Your task to perform on an android device: Open network settings Image 0: 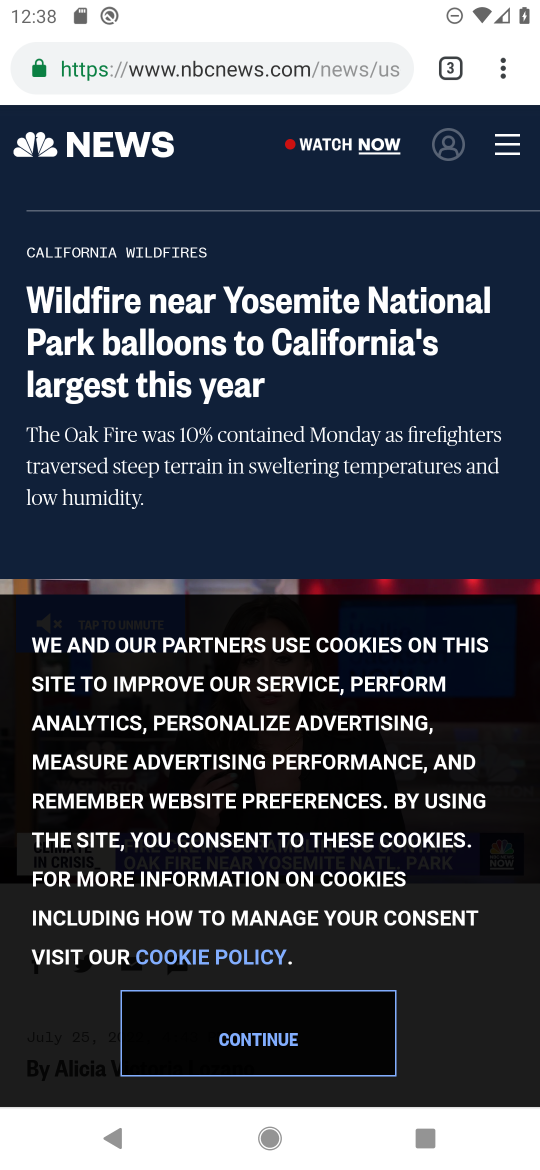
Step 0: click (516, 74)
Your task to perform on an android device: Open network settings Image 1: 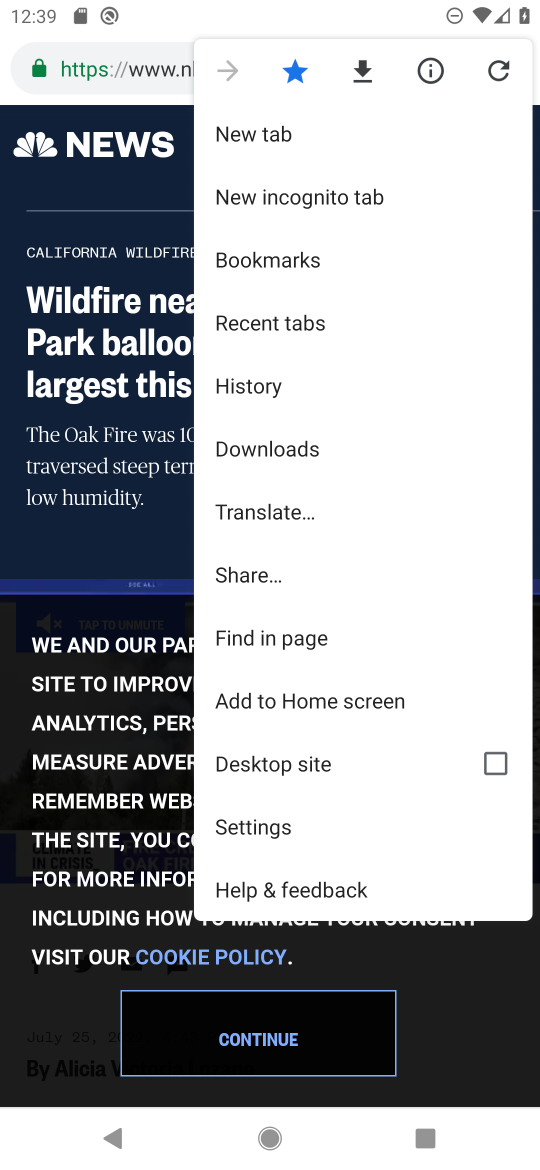
Step 1: click (272, 13)
Your task to perform on an android device: Open network settings Image 2: 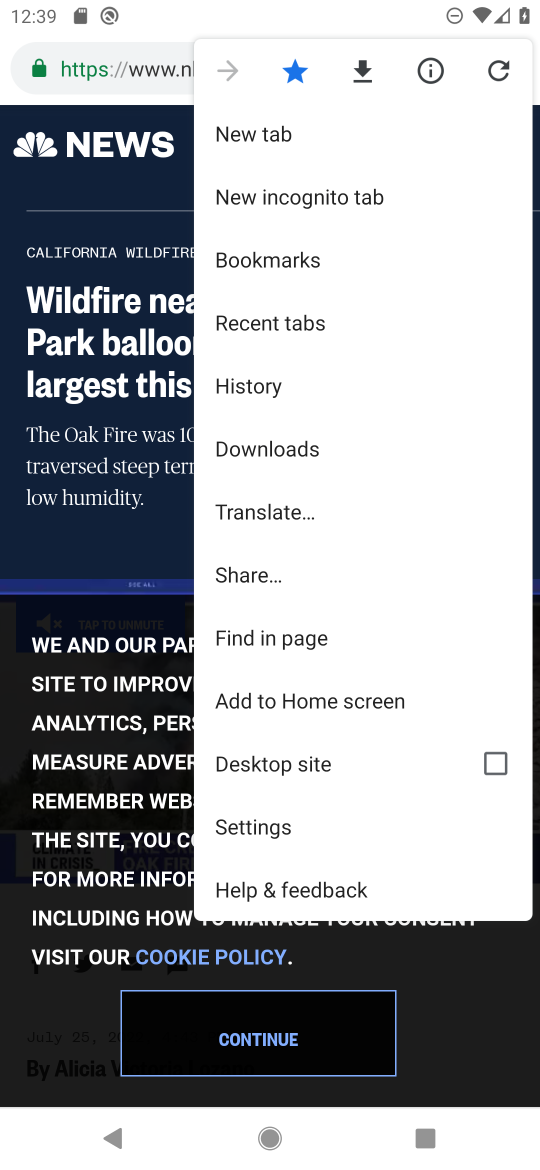
Step 2: drag from (255, 568) to (183, 897)
Your task to perform on an android device: Open network settings Image 3: 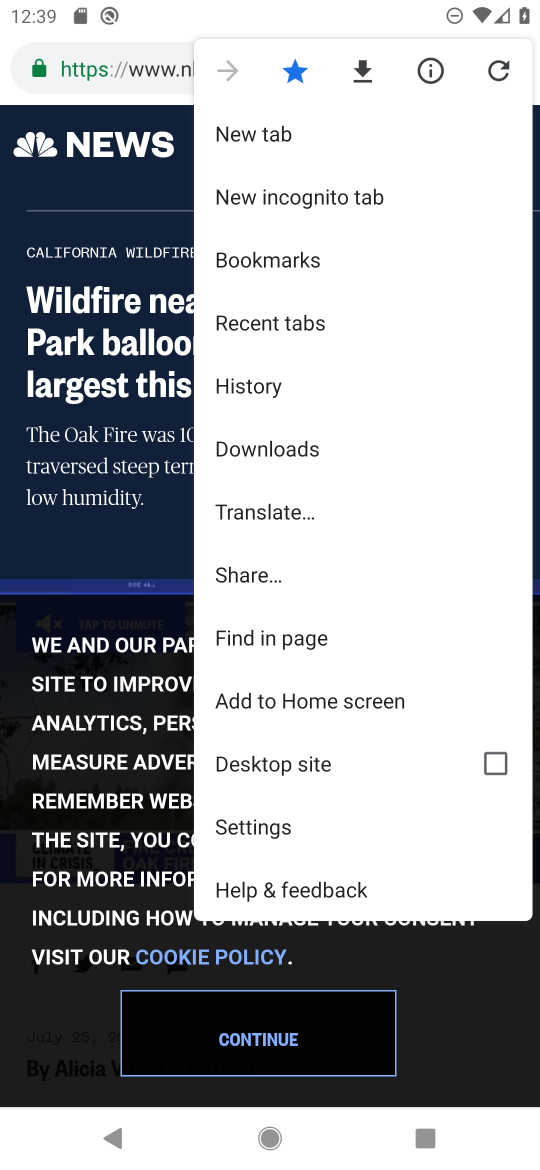
Step 3: drag from (254, 9) to (128, 1158)
Your task to perform on an android device: Open network settings Image 4: 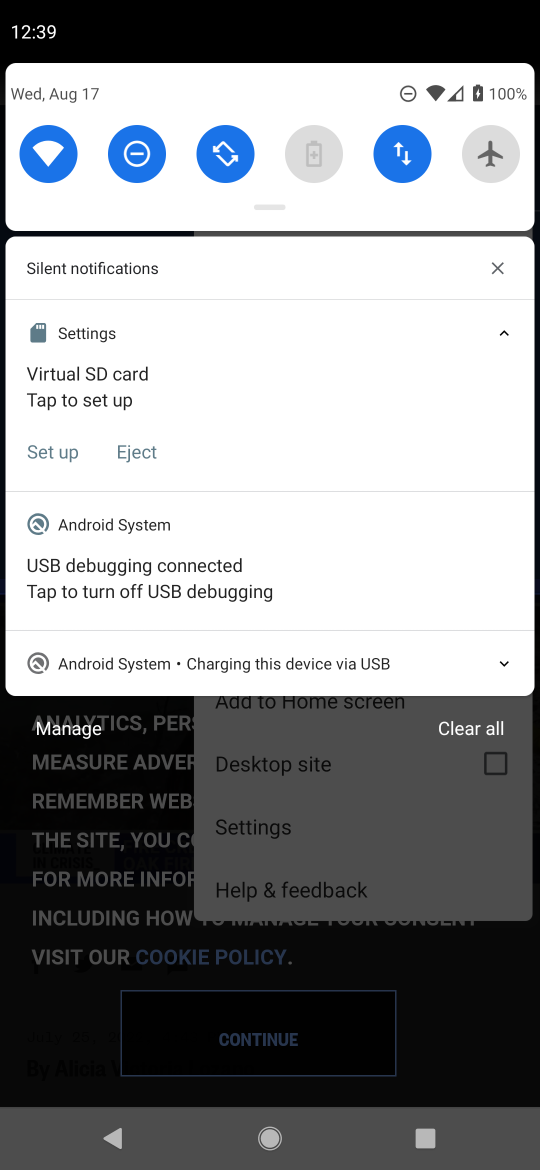
Step 4: click (390, 167)
Your task to perform on an android device: Open network settings Image 5: 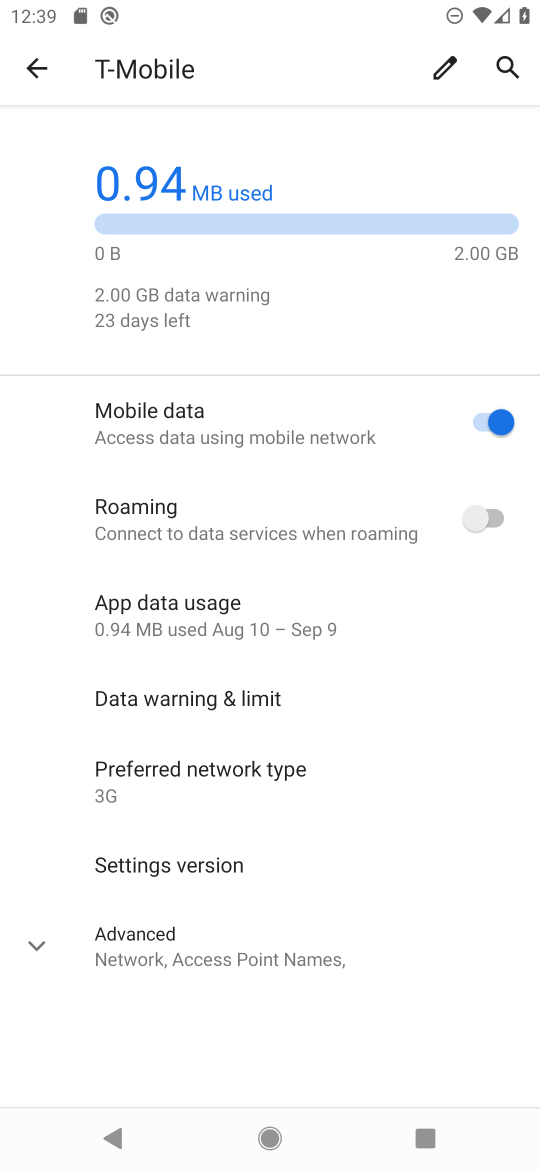
Step 5: task complete